Your task to perform on an android device: Go to internet settings Image 0: 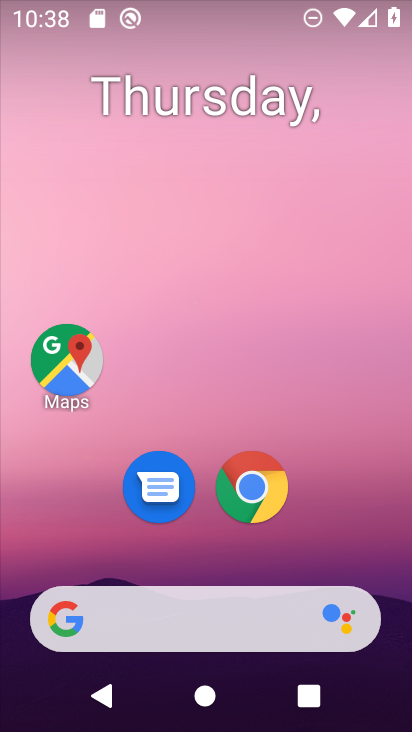
Step 0: drag from (324, 523) to (187, 125)
Your task to perform on an android device: Go to internet settings Image 1: 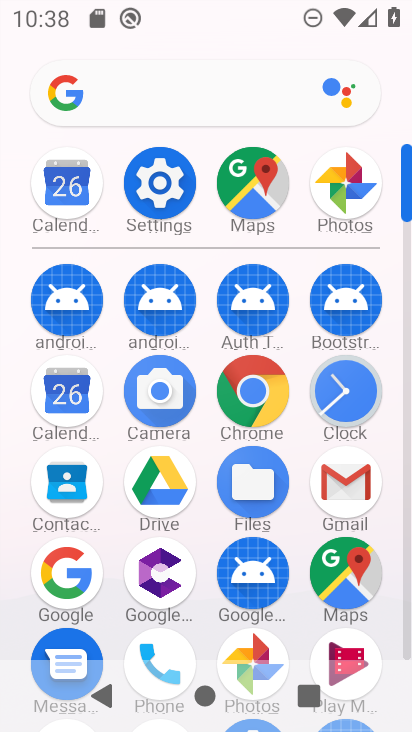
Step 1: click (173, 173)
Your task to perform on an android device: Go to internet settings Image 2: 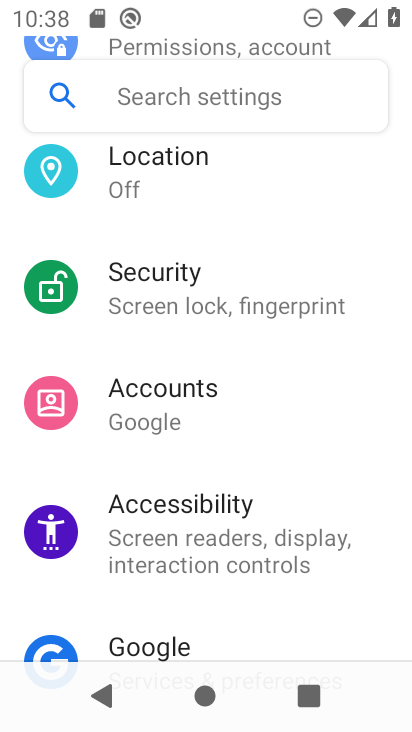
Step 2: drag from (230, 219) to (272, 642)
Your task to perform on an android device: Go to internet settings Image 3: 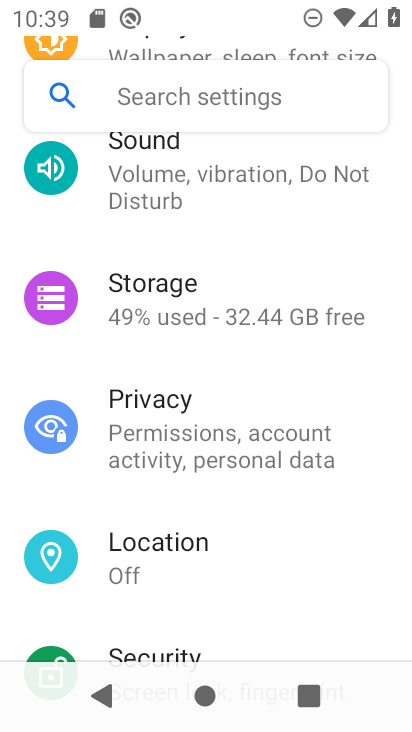
Step 3: drag from (206, 158) to (235, 538)
Your task to perform on an android device: Go to internet settings Image 4: 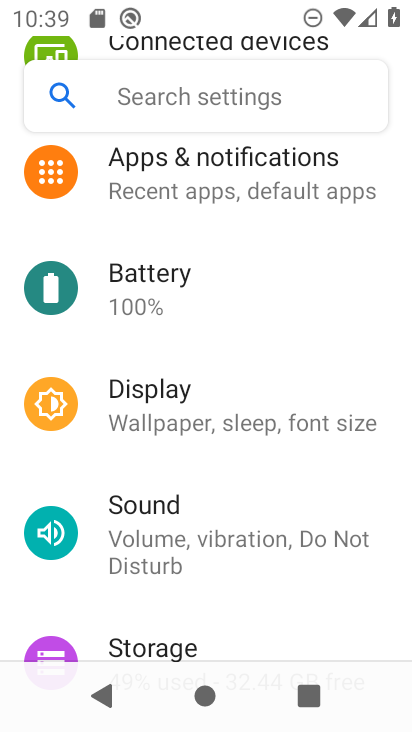
Step 4: drag from (219, 257) to (220, 606)
Your task to perform on an android device: Go to internet settings Image 5: 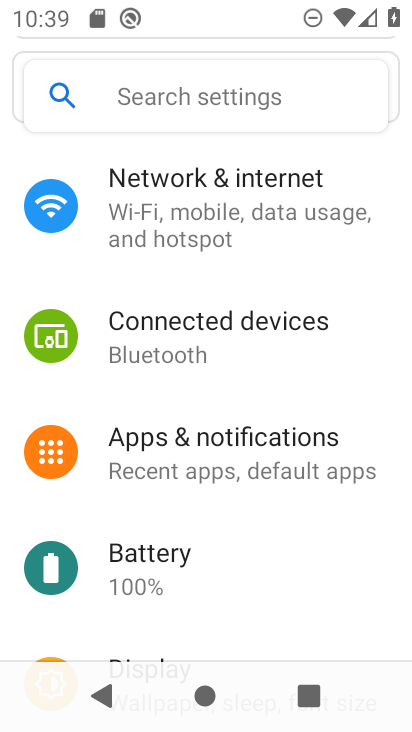
Step 5: click (238, 199)
Your task to perform on an android device: Go to internet settings Image 6: 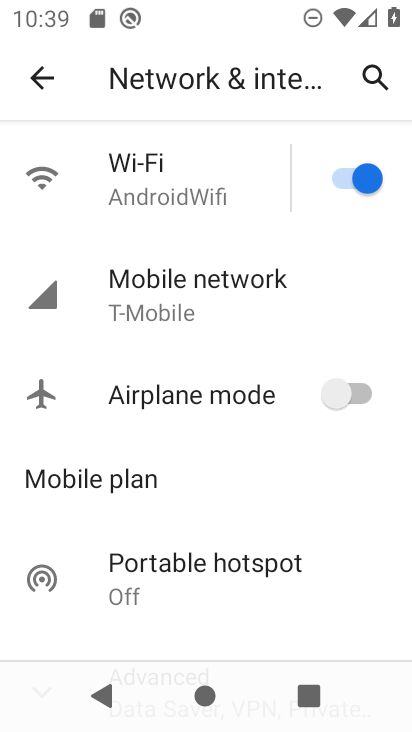
Step 6: task complete